Your task to perform on an android device: Open display settings Image 0: 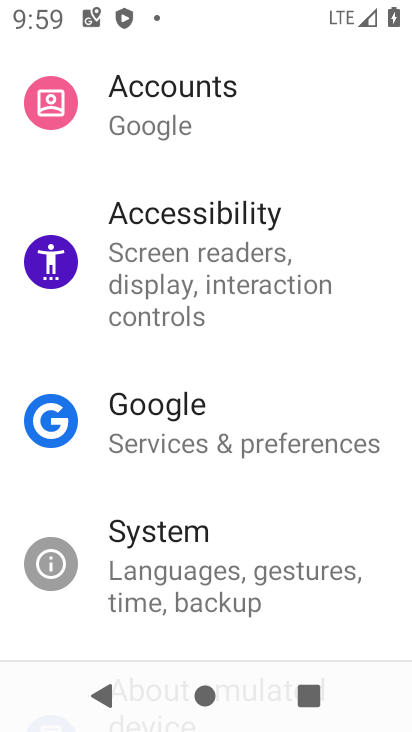
Step 0: press home button
Your task to perform on an android device: Open display settings Image 1: 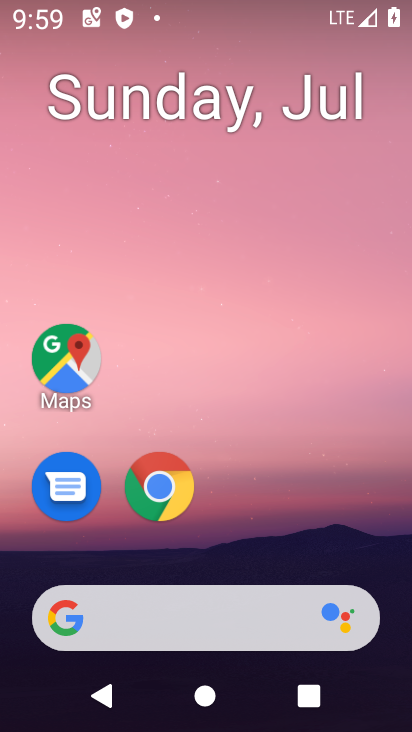
Step 1: drag from (363, 547) to (354, 116)
Your task to perform on an android device: Open display settings Image 2: 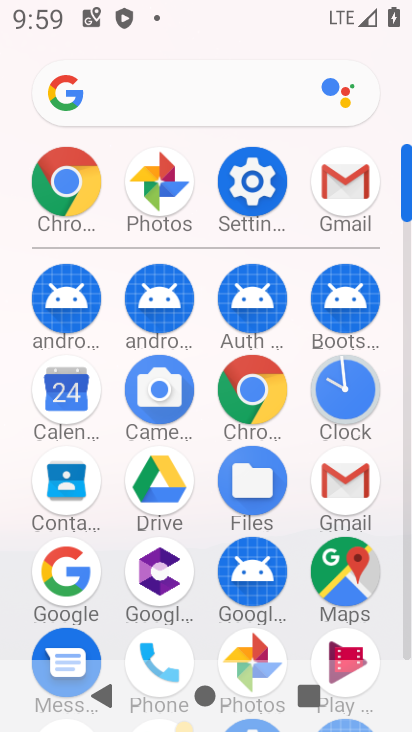
Step 2: click (268, 181)
Your task to perform on an android device: Open display settings Image 3: 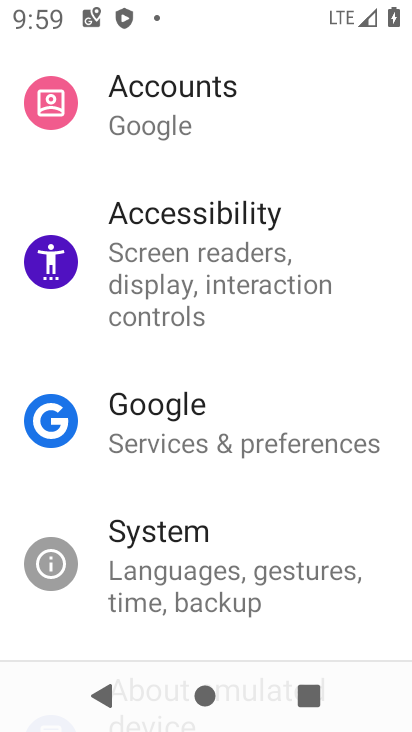
Step 3: drag from (347, 100) to (364, 280)
Your task to perform on an android device: Open display settings Image 4: 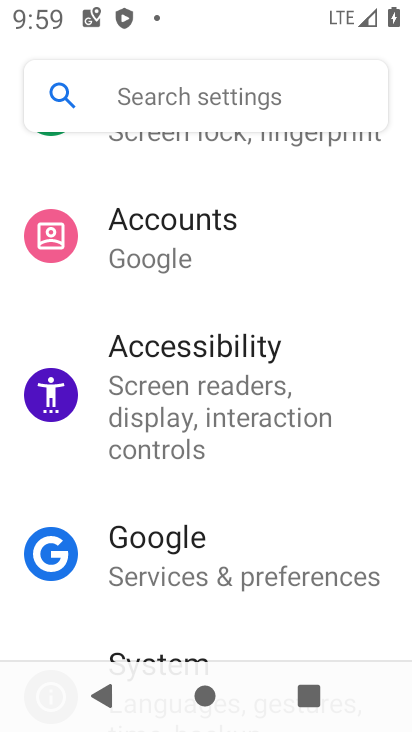
Step 4: drag from (384, 141) to (375, 357)
Your task to perform on an android device: Open display settings Image 5: 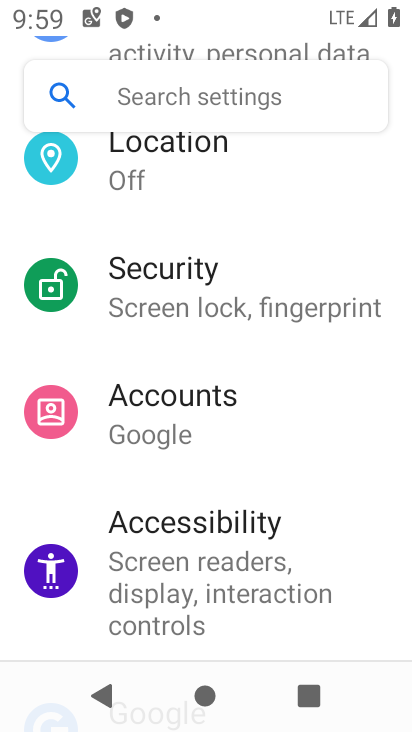
Step 5: drag from (371, 157) to (370, 305)
Your task to perform on an android device: Open display settings Image 6: 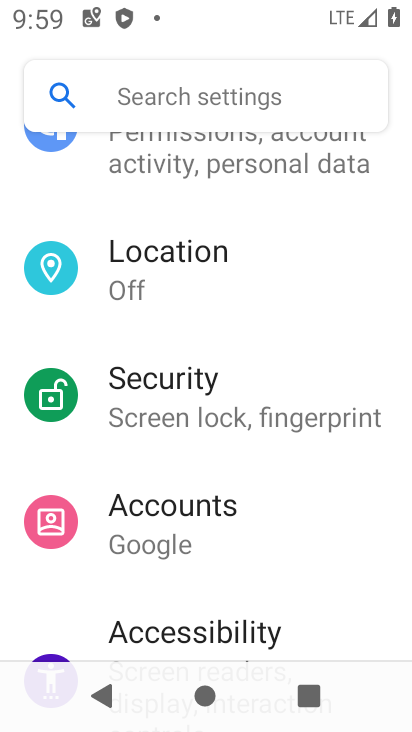
Step 6: drag from (389, 153) to (388, 319)
Your task to perform on an android device: Open display settings Image 7: 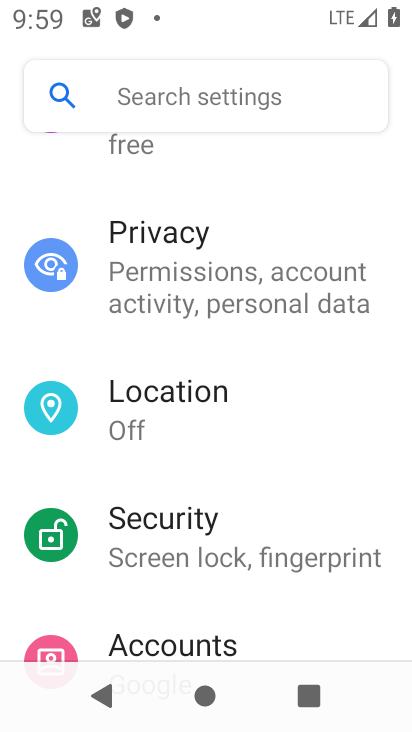
Step 7: drag from (380, 175) to (375, 322)
Your task to perform on an android device: Open display settings Image 8: 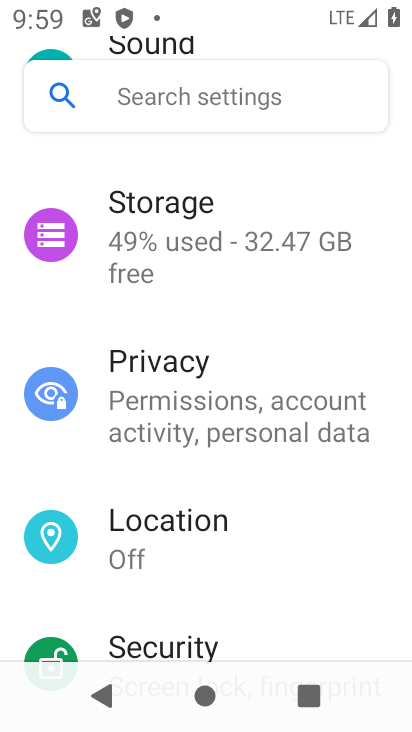
Step 8: drag from (382, 157) to (371, 311)
Your task to perform on an android device: Open display settings Image 9: 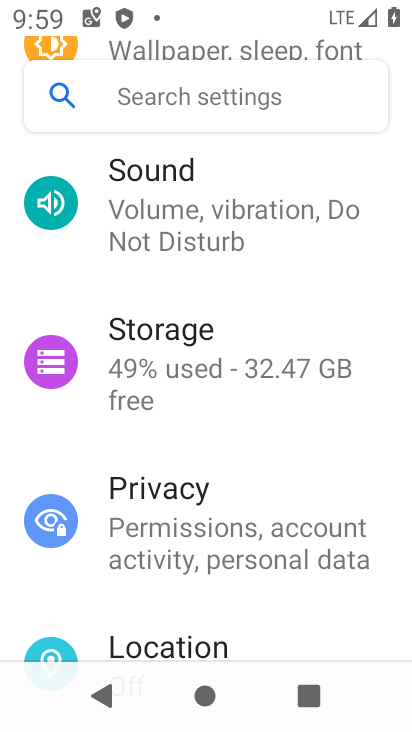
Step 9: drag from (368, 153) to (367, 309)
Your task to perform on an android device: Open display settings Image 10: 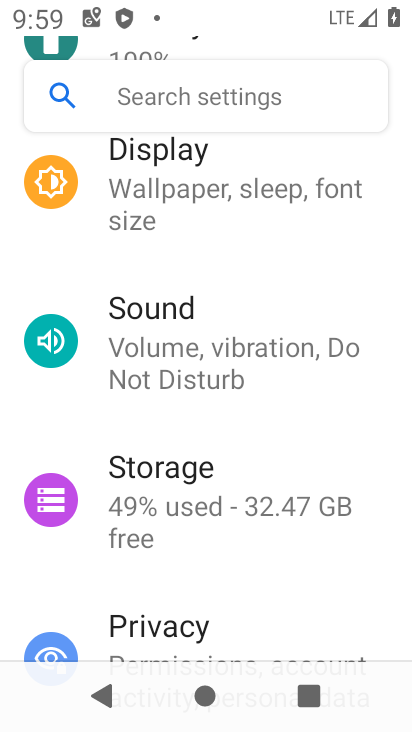
Step 10: drag from (384, 160) to (370, 303)
Your task to perform on an android device: Open display settings Image 11: 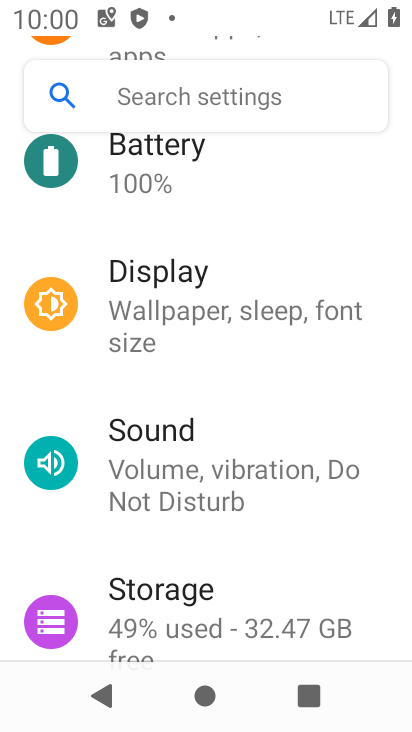
Step 11: drag from (367, 157) to (368, 291)
Your task to perform on an android device: Open display settings Image 12: 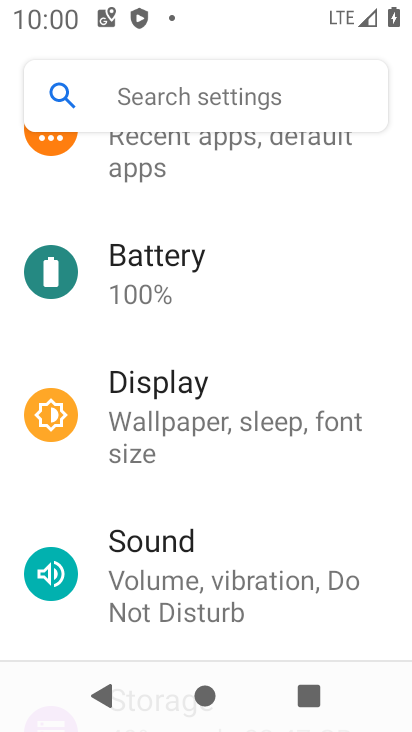
Step 12: drag from (367, 154) to (368, 307)
Your task to perform on an android device: Open display settings Image 13: 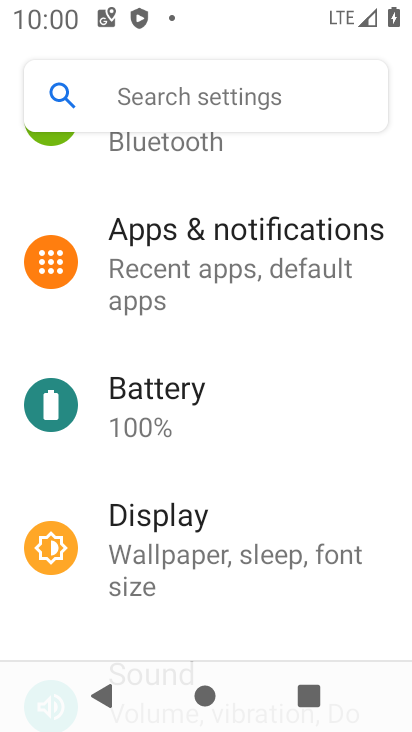
Step 13: click (319, 552)
Your task to perform on an android device: Open display settings Image 14: 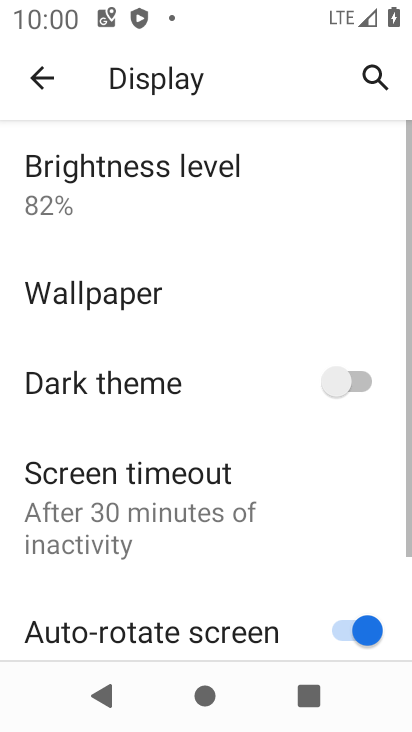
Step 14: drag from (313, 553) to (309, 428)
Your task to perform on an android device: Open display settings Image 15: 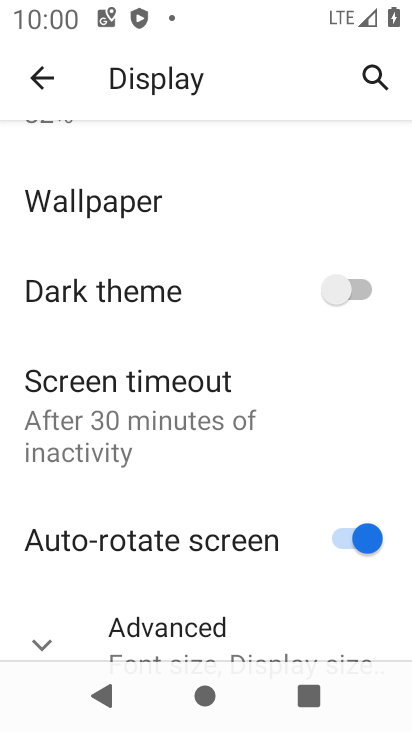
Step 15: drag from (290, 608) to (291, 411)
Your task to perform on an android device: Open display settings Image 16: 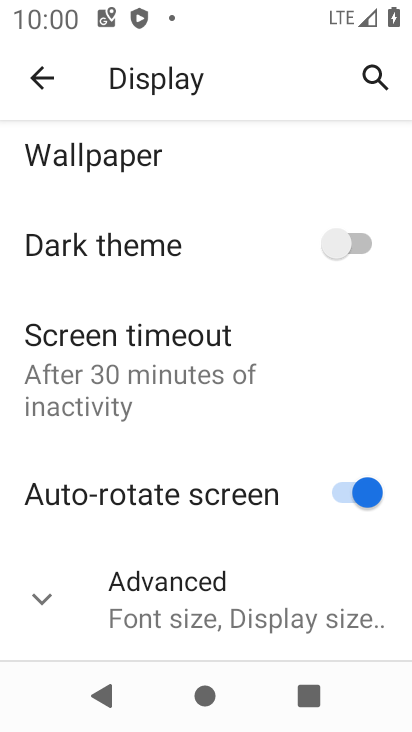
Step 16: click (258, 591)
Your task to perform on an android device: Open display settings Image 17: 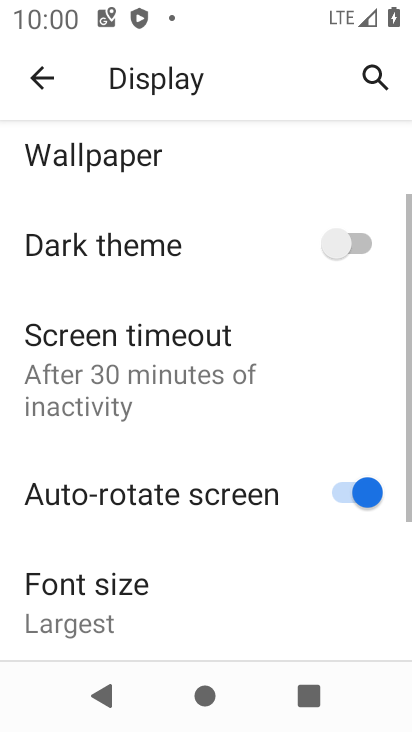
Step 17: click (295, 416)
Your task to perform on an android device: Open display settings Image 18: 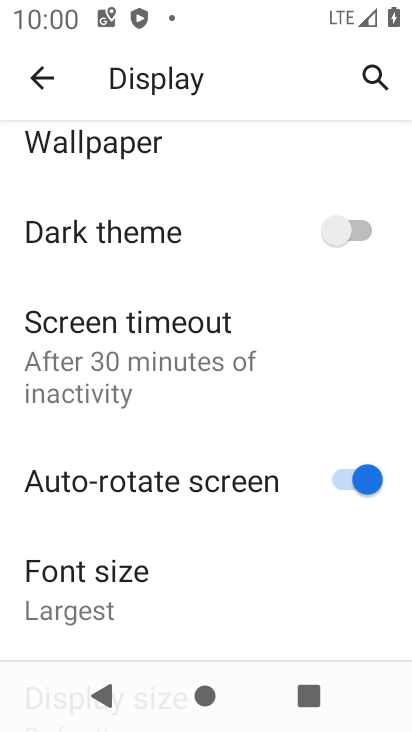
Step 18: task complete